Your task to perform on an android device: Go to CNN.com Image 0: 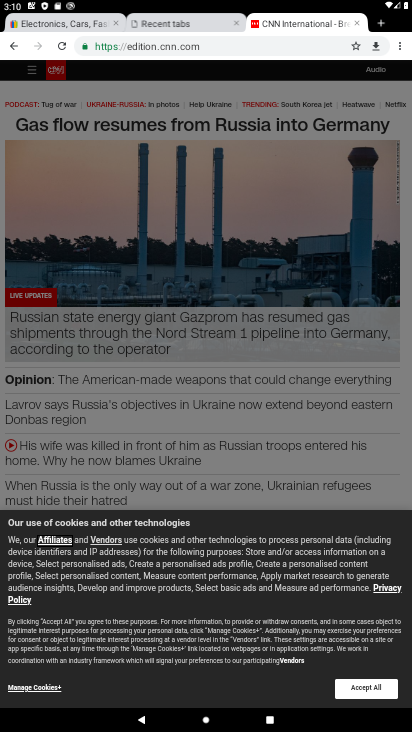
Step 0: click (240, 45)
Your task to perform on an android device: Go to CNN.com Image 1: 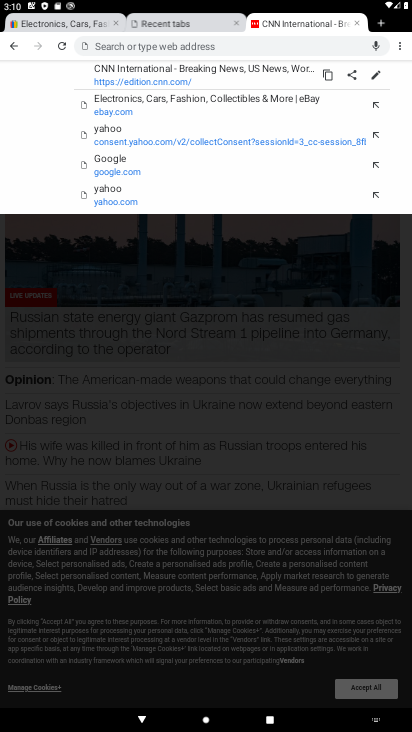
Step 1: task complete